Your task to perform on an android device: Search for Italian restaurants on Maps Image 0: 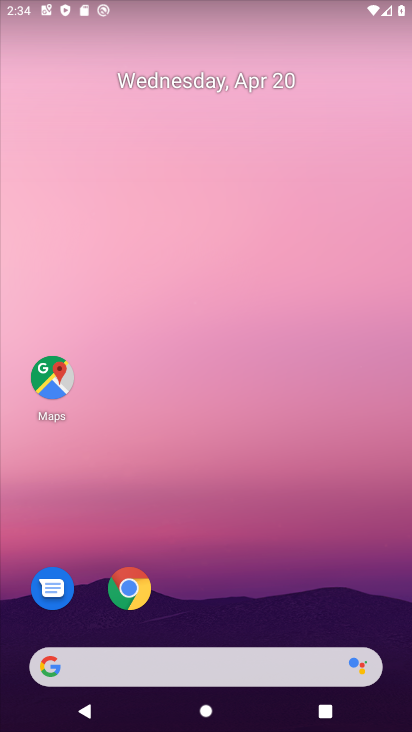
Step 0: click (52, 379)
Your task to perform on an android device: Search for Italian restaurants on Maps Image 1: 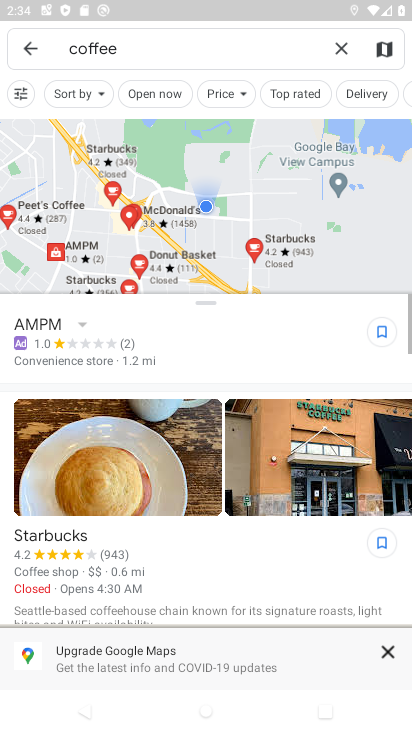
Step 1: click (277, 47)
Your task to perform on an android device: Search for Italian restaurants on Maps Image 2: 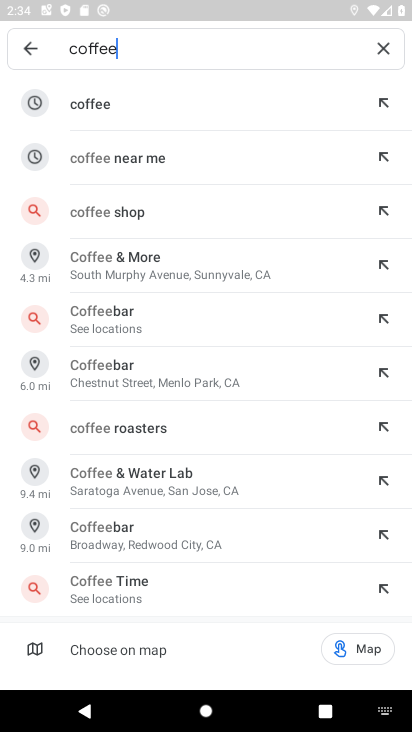
Step 2: click (382, 44)
Your task to perform on an android device: Search for Italian restaurants on Maps Image 3: 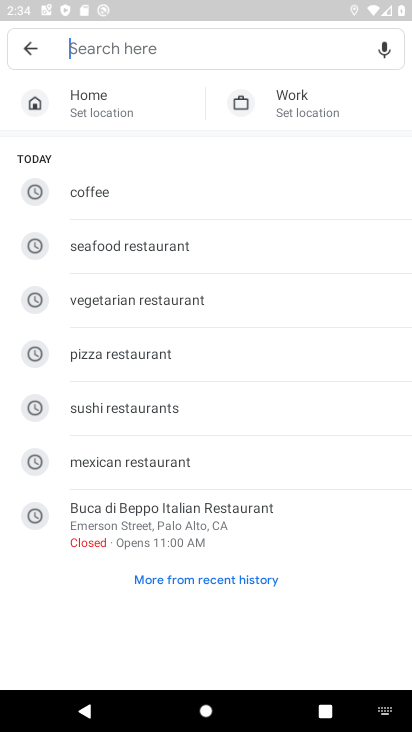
Step 3: type "italian restaurents"
Your task to perform on an android device: Search for Italian restaurants on Maps Image 4: 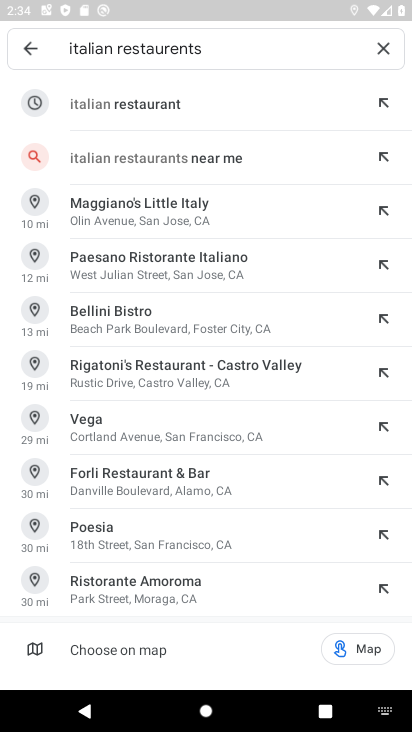
Step 4: click (169, 101)
Your task to perform on an android device: Search for Italian restaurants on Maps Image 5: 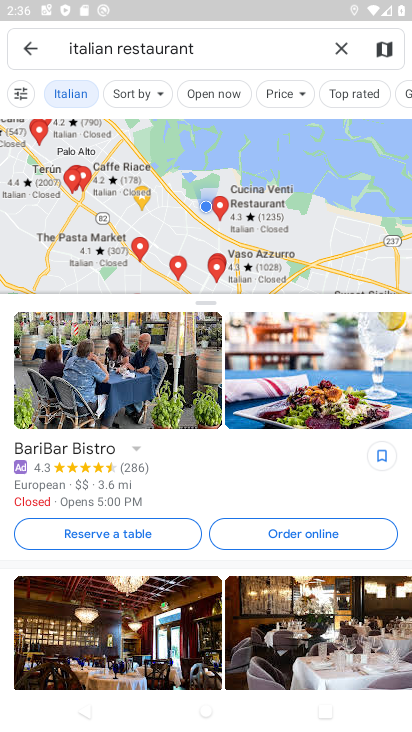
Step 5: task complete